Your task to perform on an android device: toggle priority inbox in the gmail app Image 0: 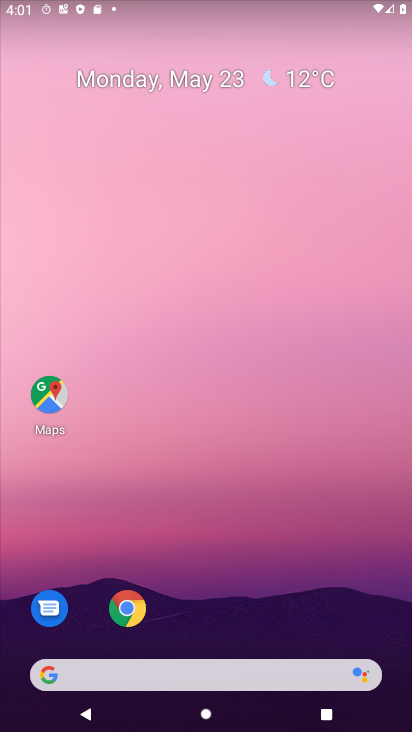
Step 0: drag from (227, 50) to (227, 8)
Your task to perform on an android device: toggle priority inbox in the gmail app Image 1: 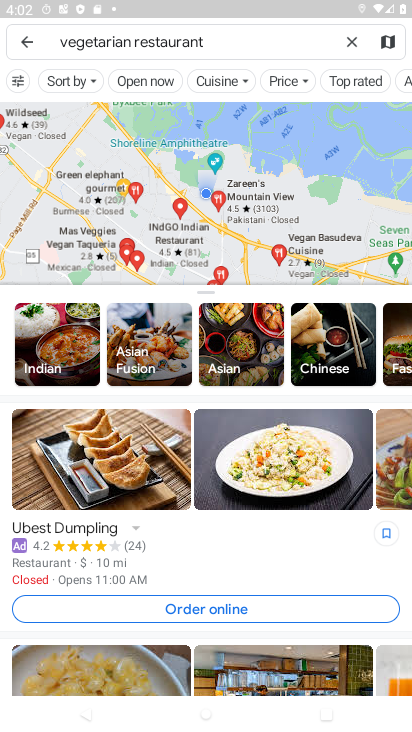
Step 1: press home button
Your task to perform on an android device: toggle priority inbox in the gmail app Image 2: 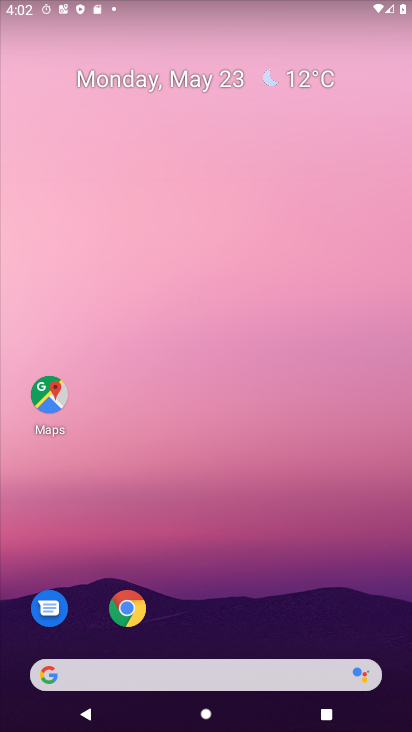
Step 2: drag from (277, 565) to (152, 4)
Your task to perform on an android device: toggle priority inbox in the gmail app Image 3: 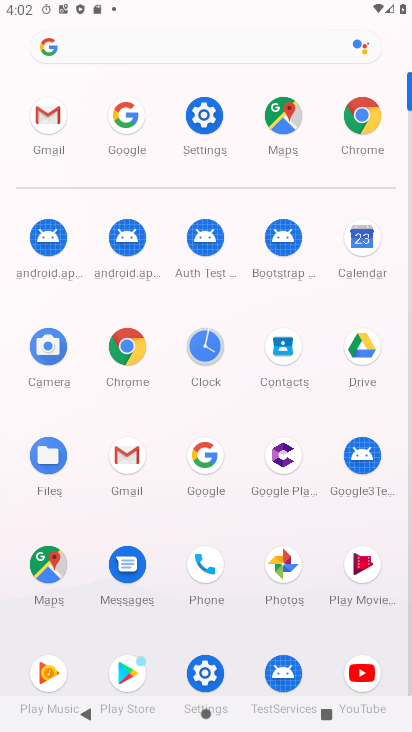
Step 3: click (129, 461)
Your task to perform on an android device: toggle priority inbox in the gmail app Image 4: 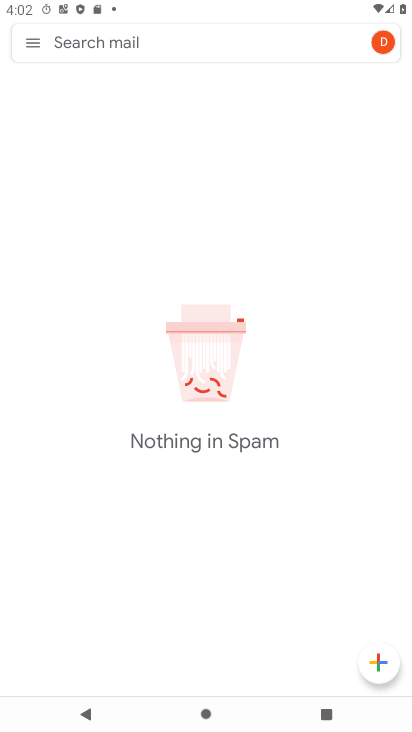
Step 4: click (24, 40)
Your task to perform on an android device: toggle priority inbox in the gmail app Image 5: 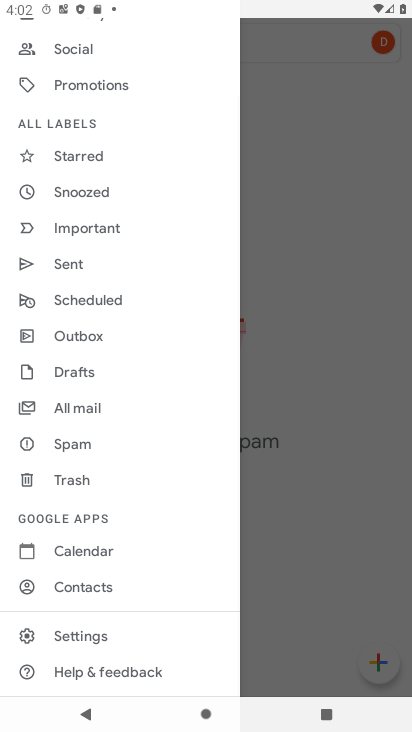
Step 5: click (121, 632)
Your task to perform on an android device: toggle priority inbox in the gmail app Image 6: 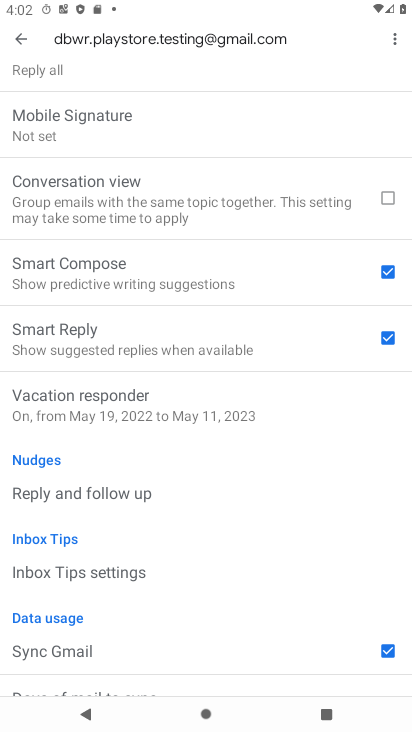
Step 6: drag from (144, 141) to (135, 649)
Your task to perform on an android device: toggle priority inbox in the gmail app Image 7: 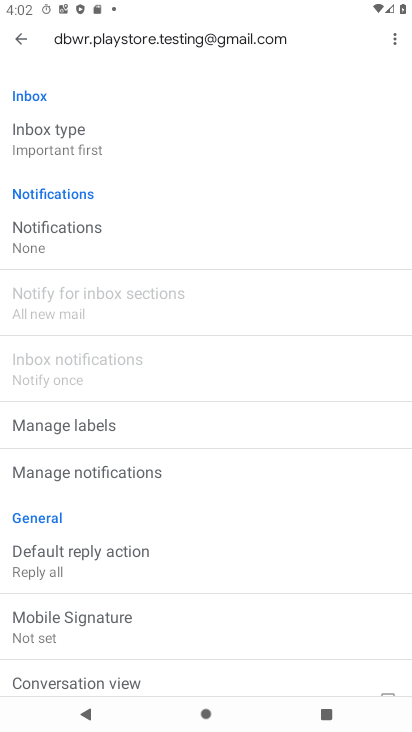
Step 7: drag from (143, 203) to (99, 610)
Your task to perform on an android device: toggle priority inbox in the gmail app Image 8: 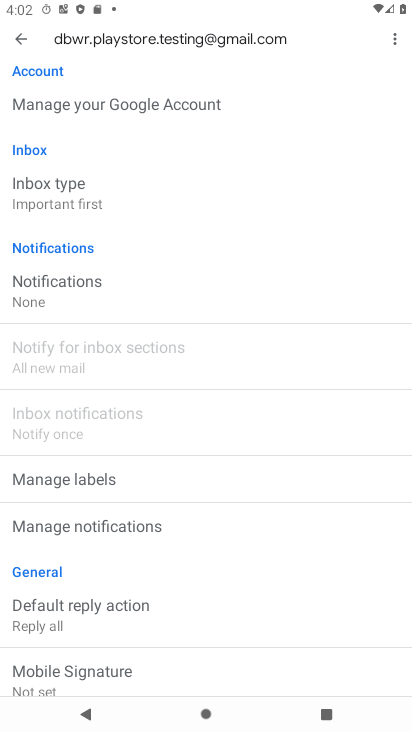
Step 8: click (126, 198)
Your task to perform on an android device: toggle priority inbox in the gmail app Image 9: 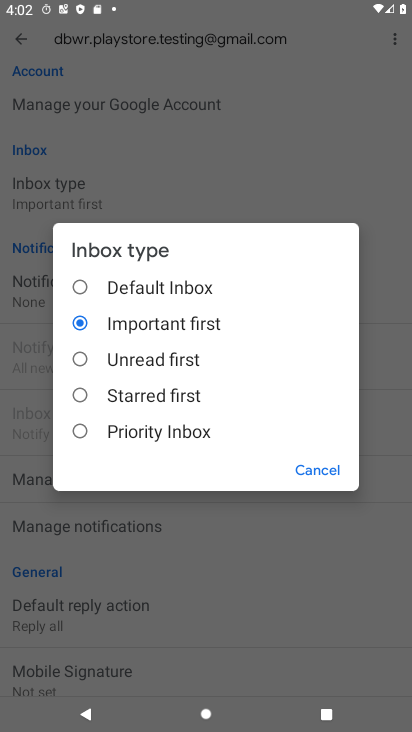
Step 9: click (168, 429)
Your task to perform on an android device: toggle priority inbox in the gmail app Image 10: 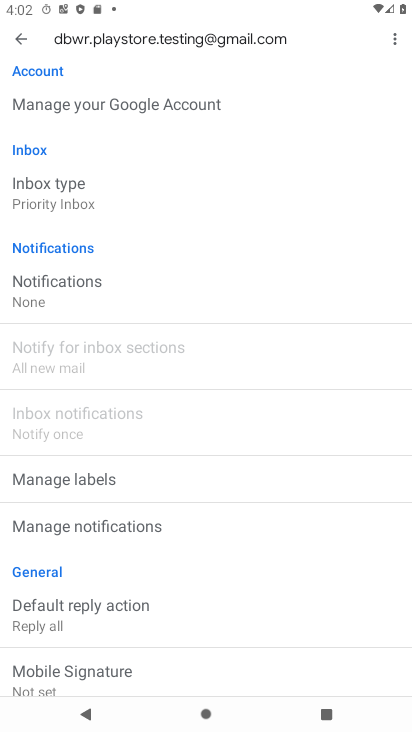
Step 10: task complete